Your task to perform on an android device: Open Google Maps Image 0: 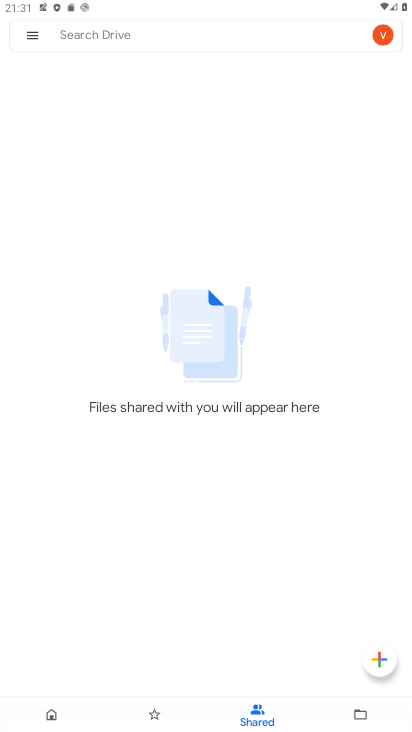
Step 0: press home button
Your task to perform on an android device: Open Google Maps Image 1: 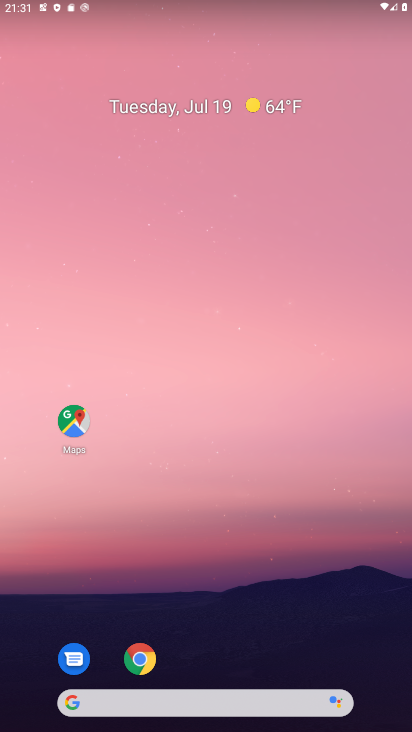
Step 1: click (79, 421)
Your task to perform on an android device: Open Google Maps Image 2: 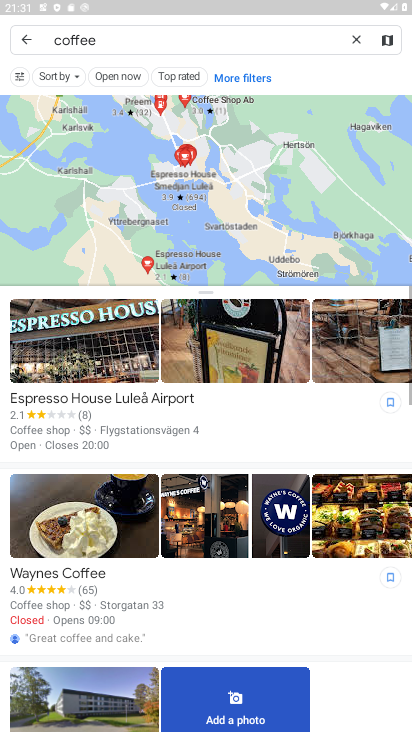
Step 2: task complete